Your task to perform on an android device: Open network settings Image 0: 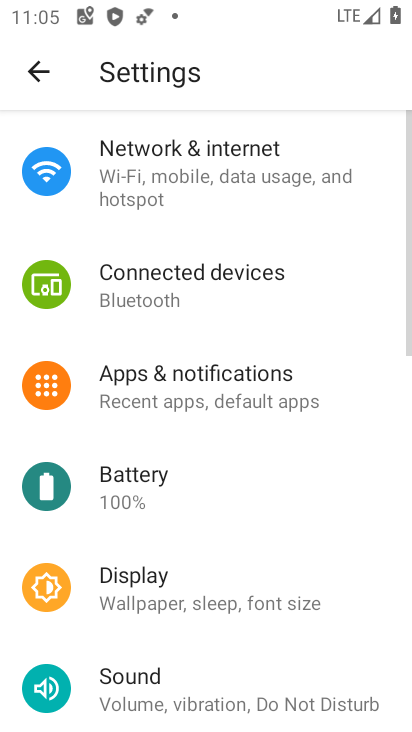
Step 0: press home button
Your task to perform on an android device: Open network settings Image 1: 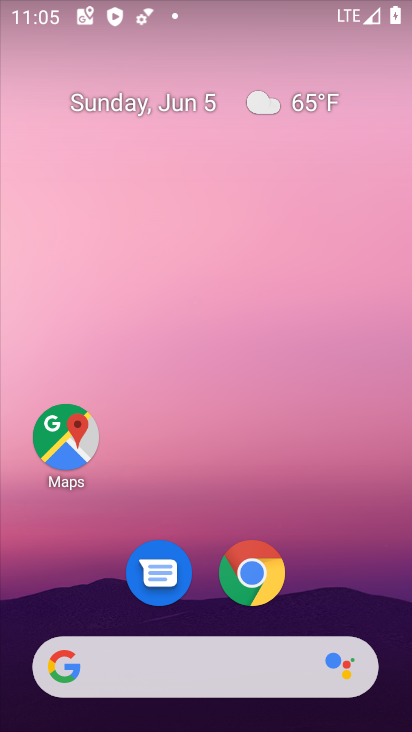
Step 1: drag from (239, 536) to (287, 116)
Your task to perform on an android device: Open network settings Image 2: 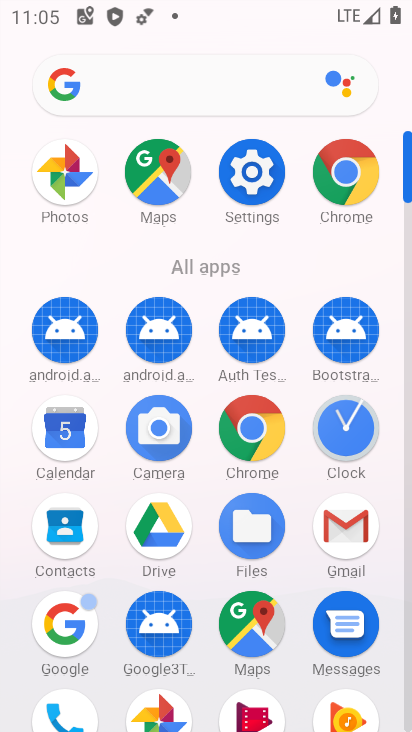
Step 2: drag from (194, 274) to (234, 55)
Your task to perform on an android device: Open network settings Image 3: 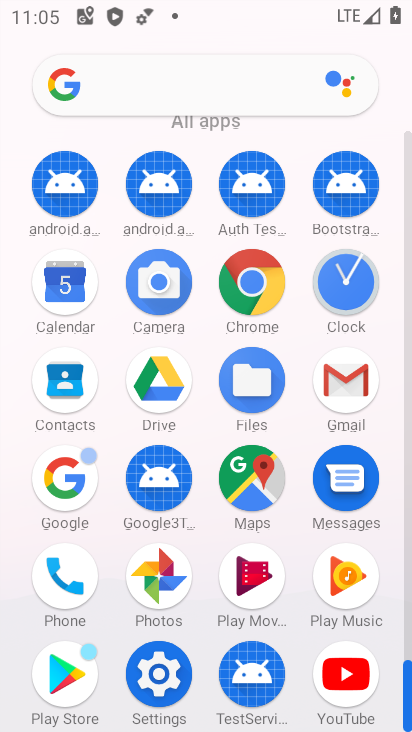
Step 3: click (174, 692)
Your task to perform on an android device: Open network settings Image 4: 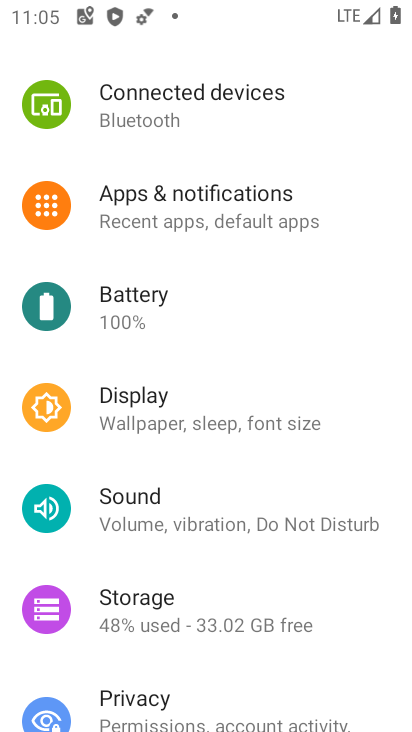
Step 4: drag from (278, 437) to (270, 693)
Your task to perform on an android device: Open network settings Image 5: 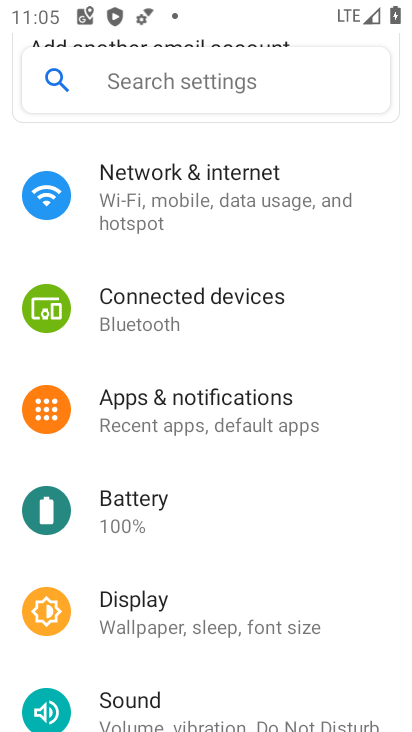
Step 5: click (243, 222)
Your task to perform on an android device: Open network settings Image 6: 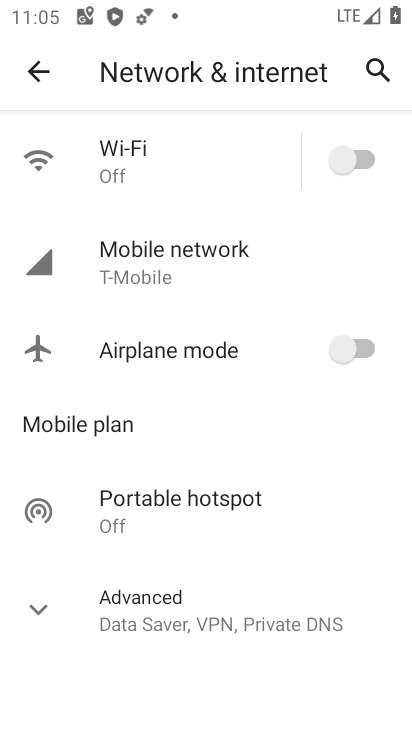
Step 6: click (255, 254)
Your task to perform on an android device: Open network settings Image 7: 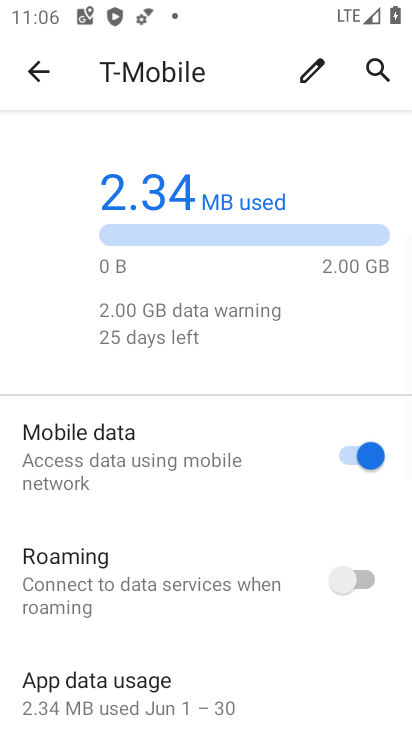
Step 7: task complete